Your task to perform on an android device: open a bookmark in the chrome app Image 0: 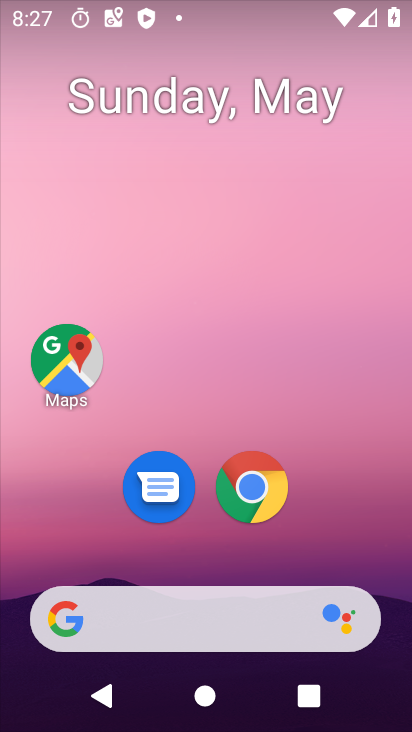
Step 0: click (243, 484)
Your task to perform on an android device: open a bookmark in the chrome app Image 1: 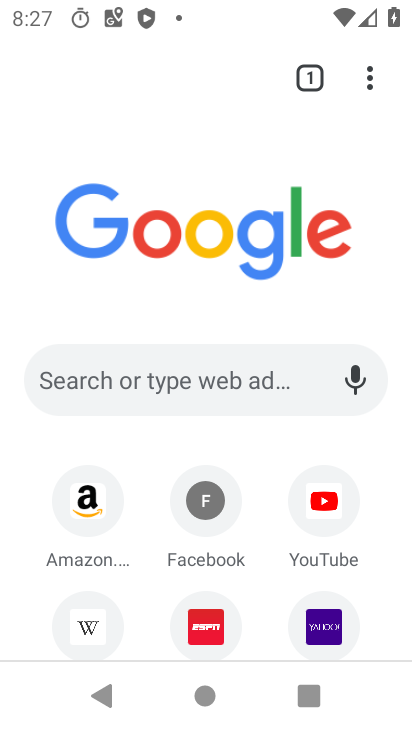
Step 1: click (368, 91)
Your task to perform on an android device: open a bookmark in the chrome app Image 2: 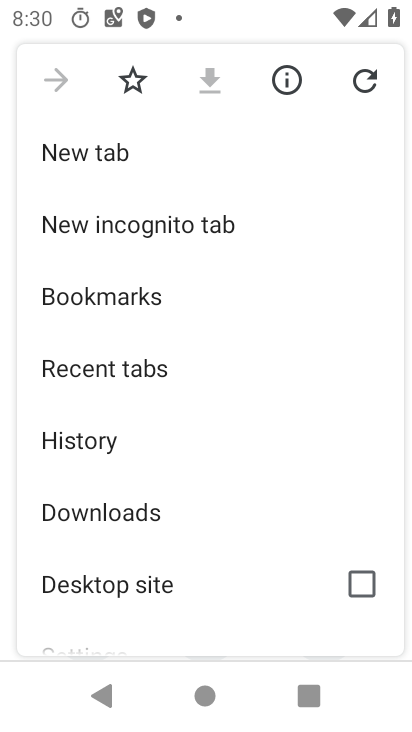
Step 2: click (98, 293)
Your task to perform on an android device: open a bookmark in the chrome app Image 3: 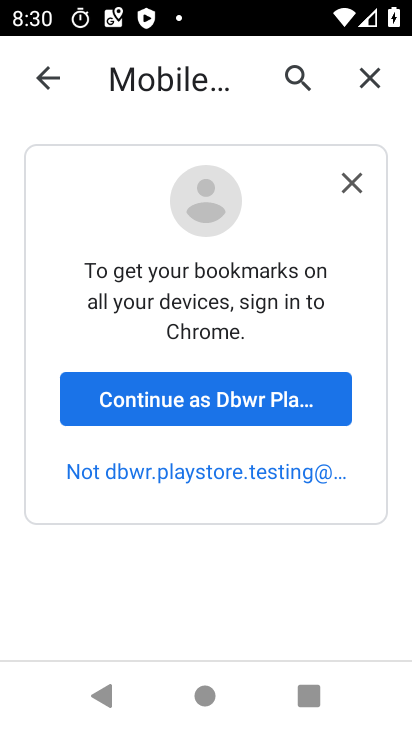
Step 3: task complete